Your task to perform on an android device: Go to Google maps Image 0: 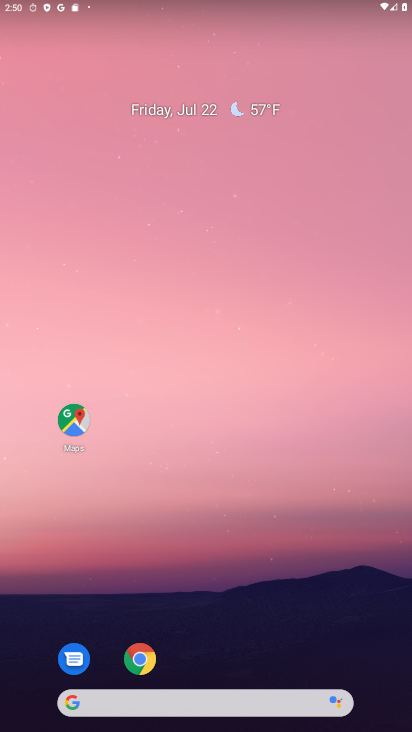
Step 0: click (77, 433)
Your task to perform on an android device: Go to Google maps Image 1: 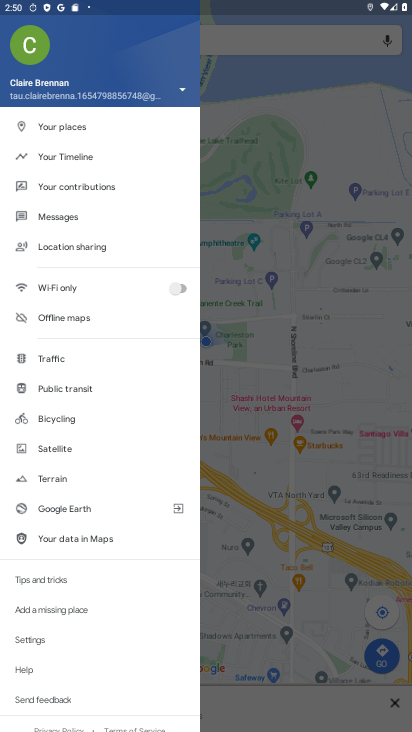
Step 1: click (286, 160)
Your task to perform on an android device: Go to Google maps Image 2: 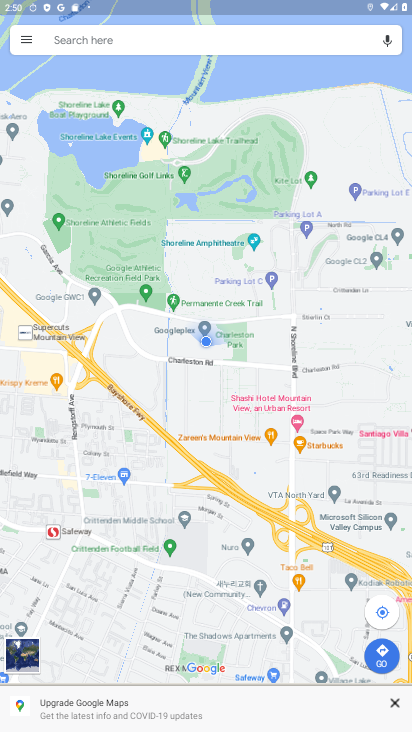
Step 2: task complete